Your task to perform on an android device: turn on showing notifications on the lock screen Image 0: 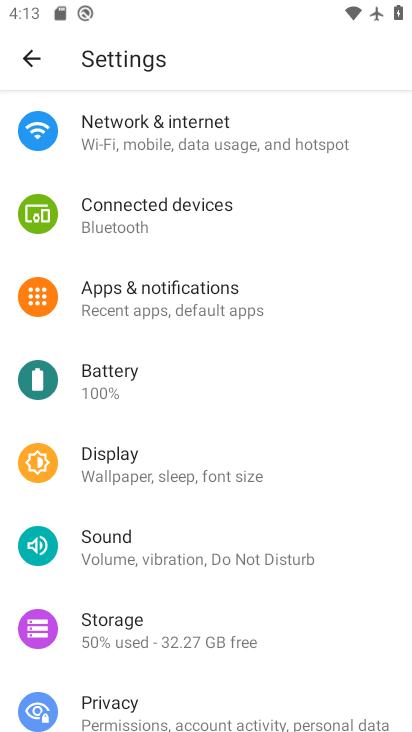
Step 0: press home button
Your task to perform on an android device: turn on showing notifications on the lock screen Image 1: 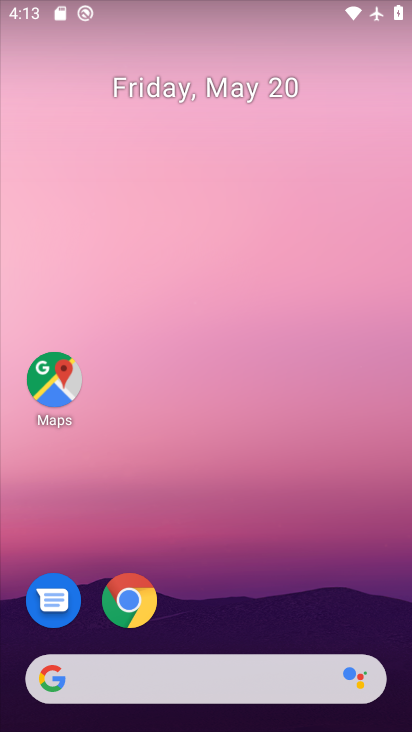
Step 1: drag from (289, 561) to (129, 22)
Your task to perform on an android device: turn on showing notifications on the lock screen Image 2: 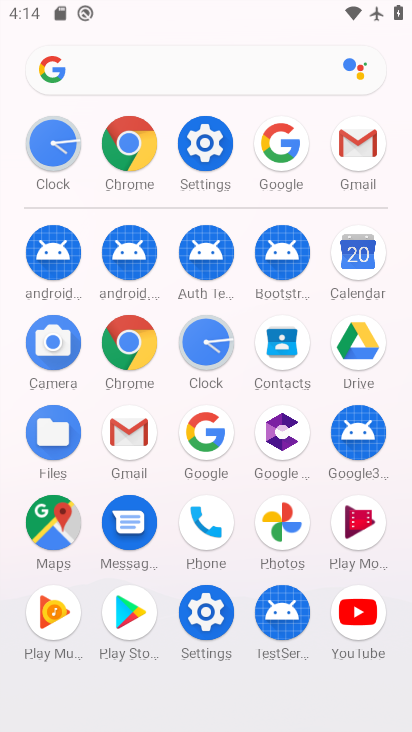
Step 2: click (205, 139)
Your task to perform on an android device: turn on showing notifications on the lock screen Image 3: 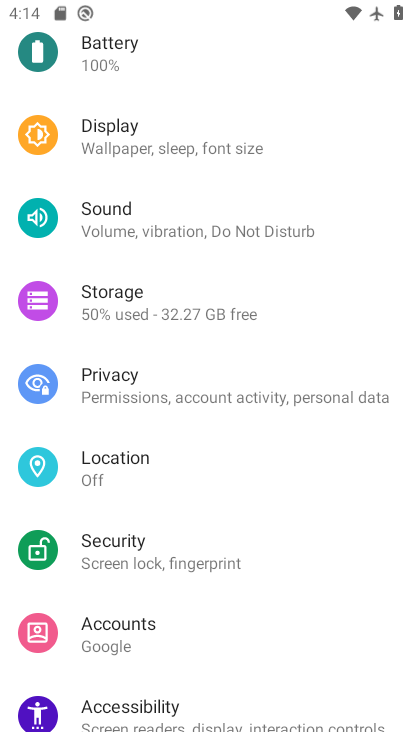
Step 3: drag from (279, 191) to (225, 577)
Your task to perform on an android device: turn on showing notifications on the lock screen Image 4: 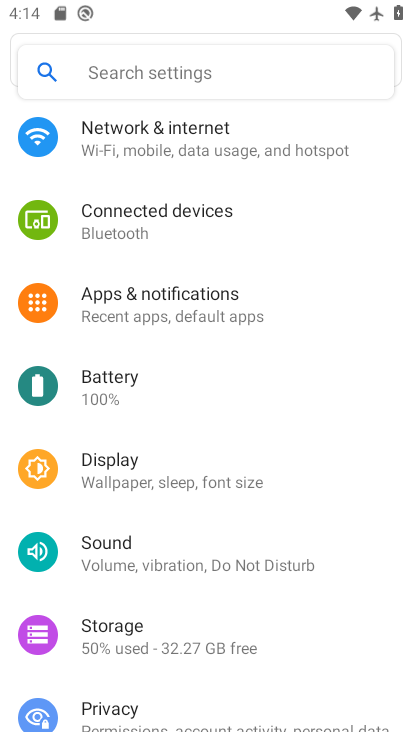
Step 4: click (174, 331)
Your task to perform on an android device: turn on showing notifications on the lock screen Image 5: 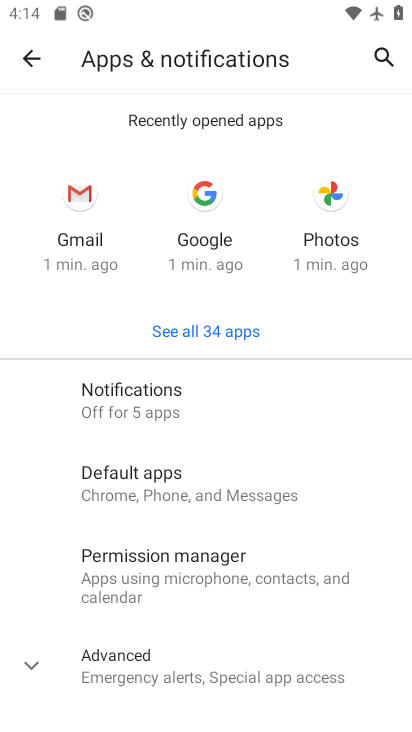
Step 5: click (225, 383)
Your task to perform on an android device: turn on showing notifications on the lock screen Image 6: 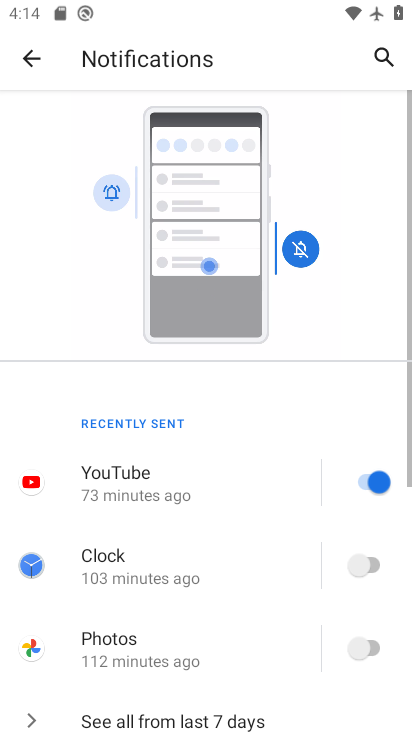
Step 6: drag from (247, 611) to (242, 282)
Your task to perform on an android device: turn on showing notifications on the lock screen Image 7: 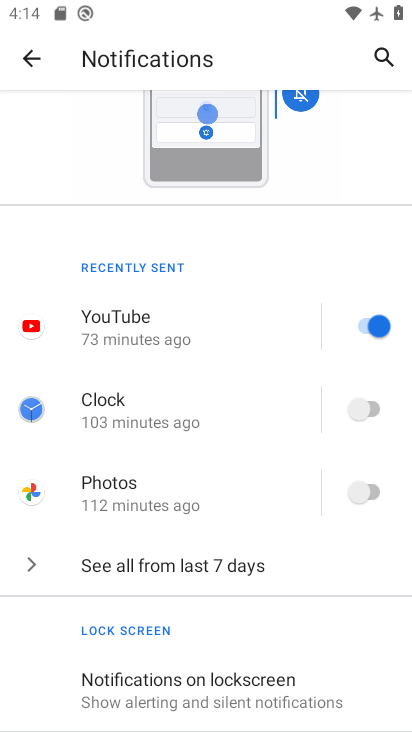
Step 7: click (166, 696)
Your task to perform on an android device: turn on showing notifications on the lock screen Image 8: 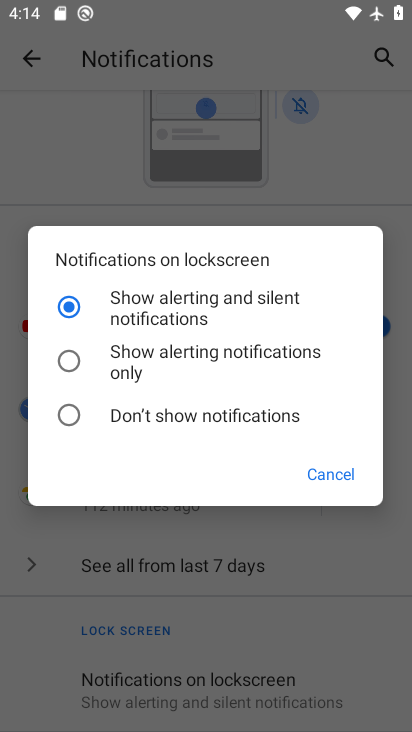
Step 8: task complete